Your task to perform on an android device: turn off javascript in the chrome app Image 0: 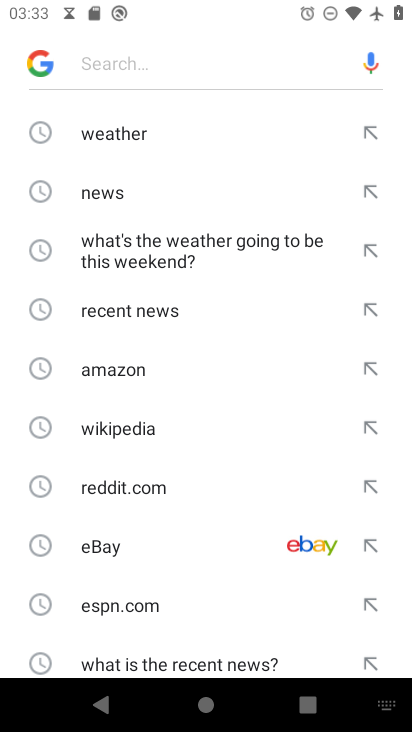
Step 0: press home button
Your task to perform on an android device: turn off javascript in the chrome app Image 1: 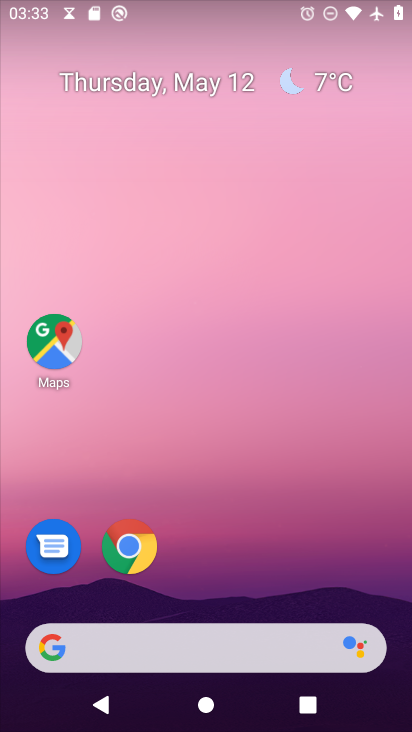
Step 1: drag from (162, 649) to (275, 144)
Your task to perform on an android device: turn off javascript in the chrome app Image 2: 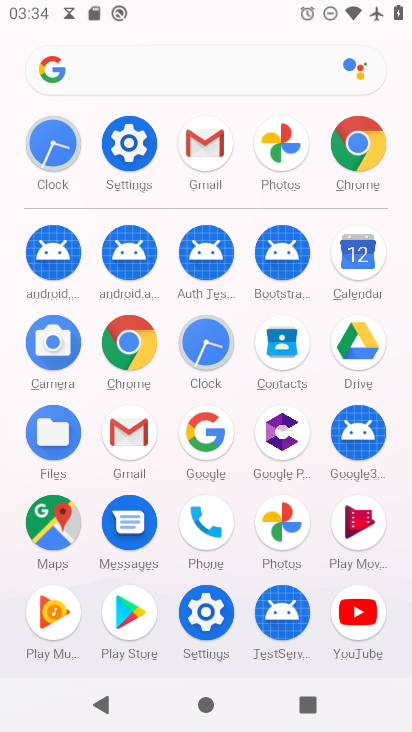
Step 2: click (345, 157)
Your task to perform on an android device: turn off javascript in the chrome app Image 3: 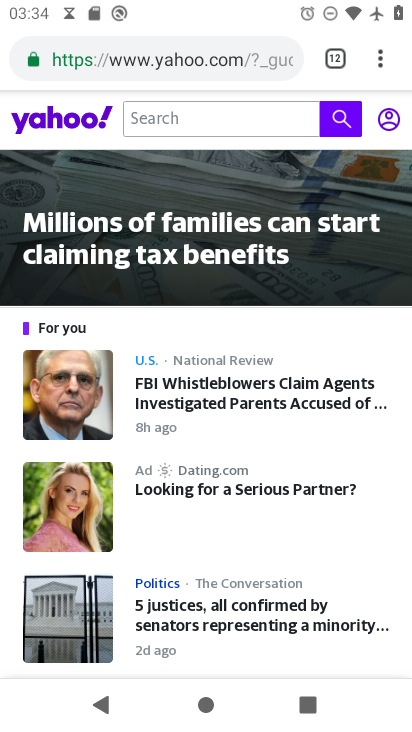
Step 3: drag from (376, 57) to (211, 589)
Your task to perform on an android device: turn off javascript in the chrome app Image 4: 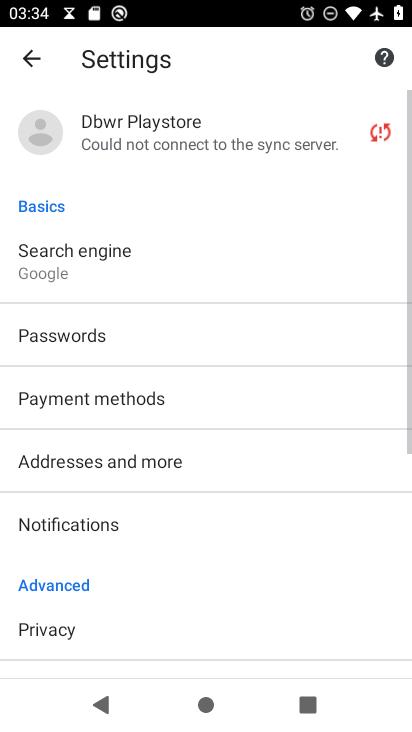
Step 4: drag from (167, 593) to (297, 147)
Your task to perform on an android device: turn off javascript in the chrome app Image 5: 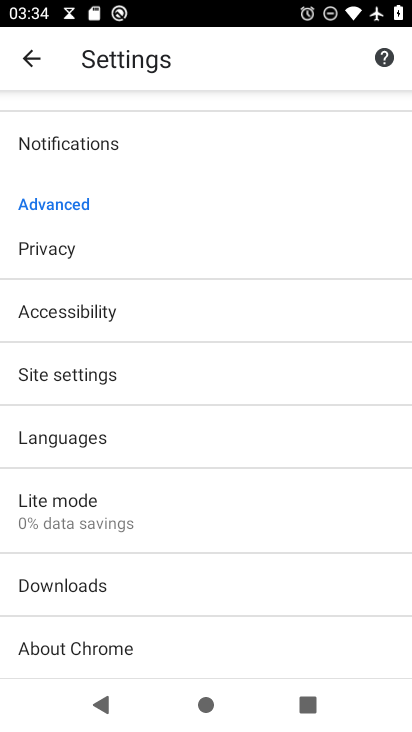
Step 5: click (94, 384)
Your task to perform on an android device: turn off javascript in the chrome app Image 6: 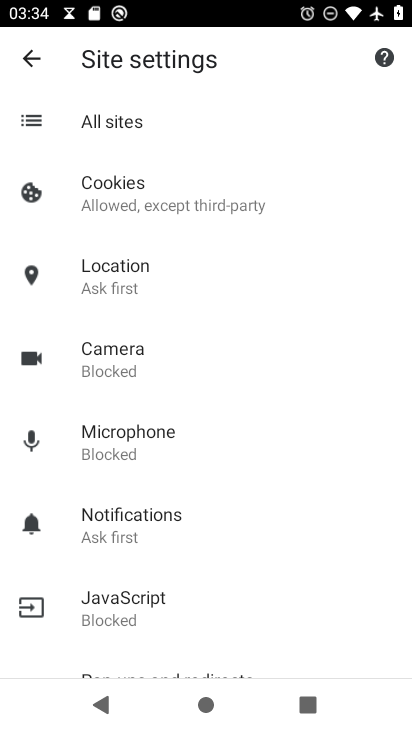
Step 6: click (150, 610)
Your task to perform on an android device: turn off javascript in the chrome app Image 7: 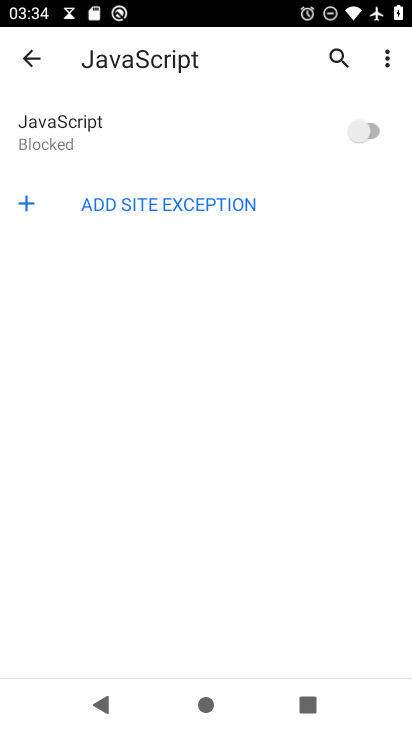
Step 7: task complete